Your task to perform on an android device: open sync settings in chrome Image 0: 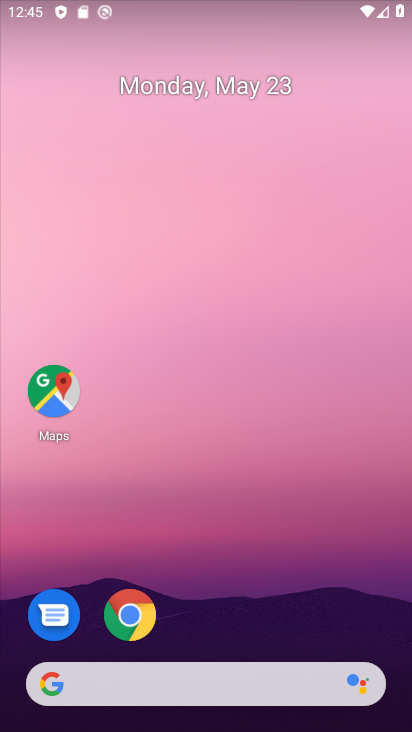
Step 0: click (134, 614)
Your task to perform on an android device: open sync settings in chrome Image 1: 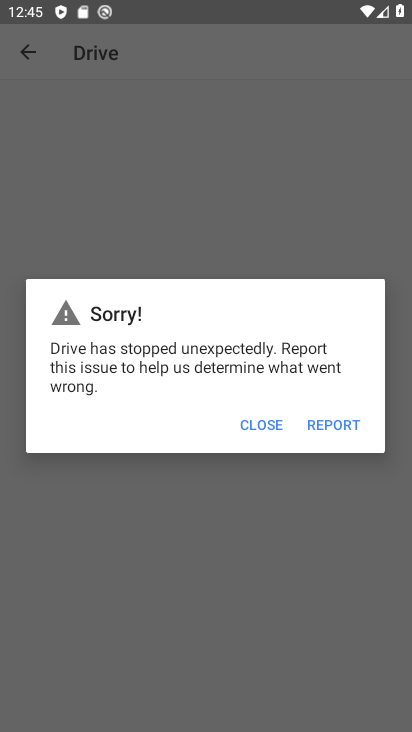
Step 1: click (261, 418)
Your task to perform on an android device: open sync settings in chrome Image 2: 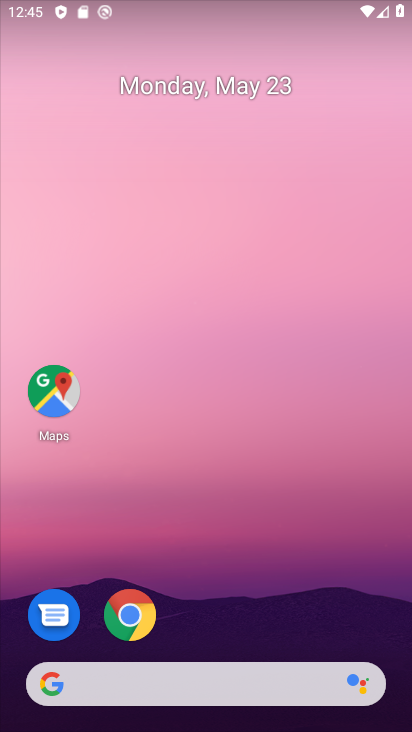
Step 2: click (129, 616)
Your task to perform on an android device: open sync settings in chrome Image 3: 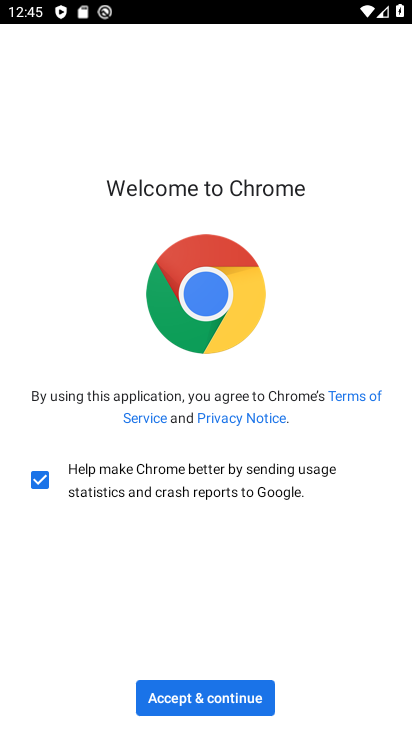
Step 3: click (175, 695)
Your task to perform on an android device: open sync settings in chrome Image 4: 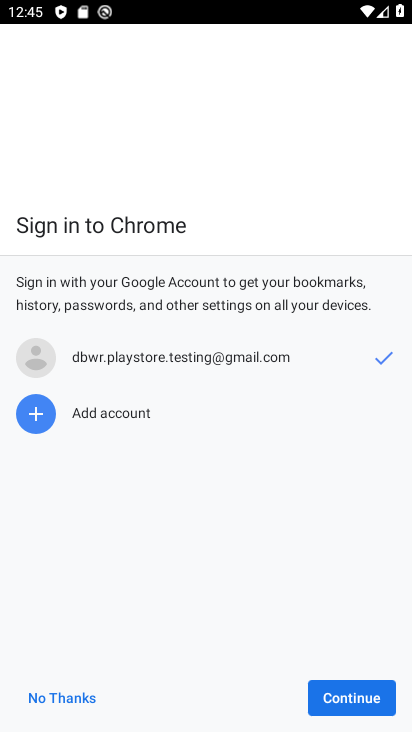
Step 4: click (344, 692)
Your task to perform on an android device: open sync settings in chrome Image 5: 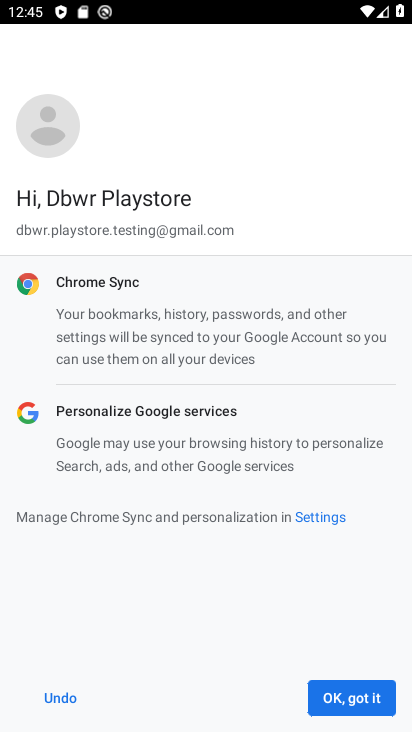
Step 5: click (344, 692)
Your task to perform on an android device: open sync settings in chrome Image 6: 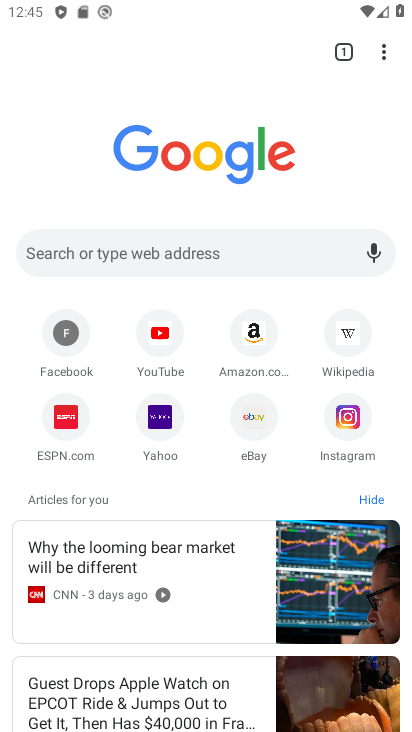
Step 6: click (386, 59)
Your task to perform on an android device: open sync settings in chrome Image 7: 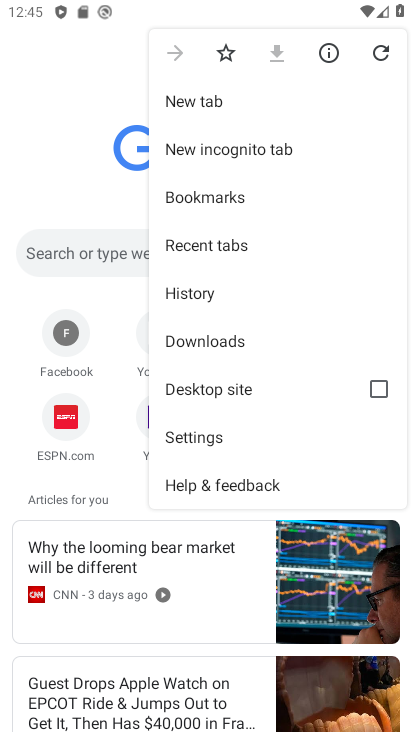
Step 7: click (194, 436)
Your task to perform on an android device: open sync settings in chrome Image 8: 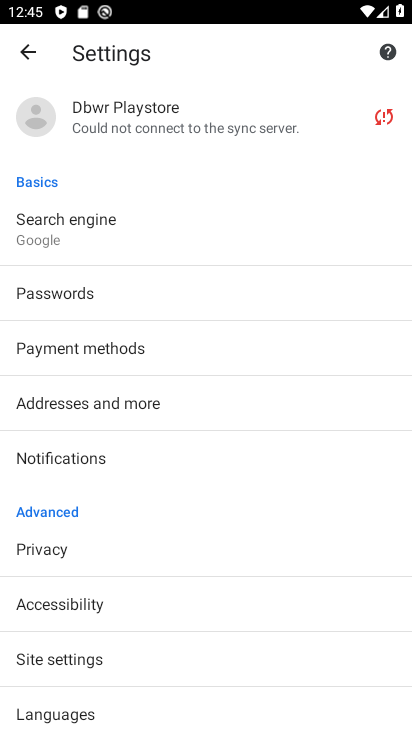
Step 8: click (41, 659)
Your task to perform on an android device: open sync settings in chrome Image 9: 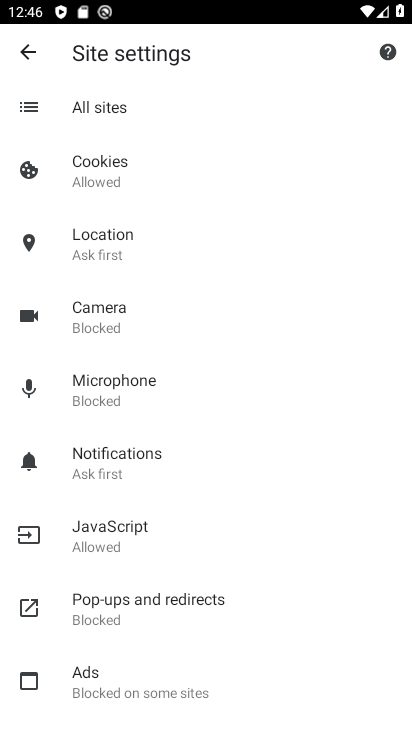
Step 9: drag from (125, 655) to (127, 278)
Your task to perform on an android device: open sync settings in chrome Image 10: 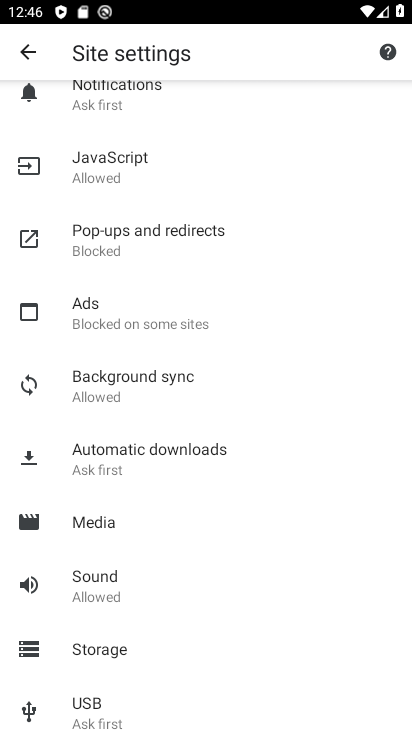
Step 10: drag from (132, 713) to (137, 370)
Your task to perform on an android device: open sync settings in chrome Image 11: 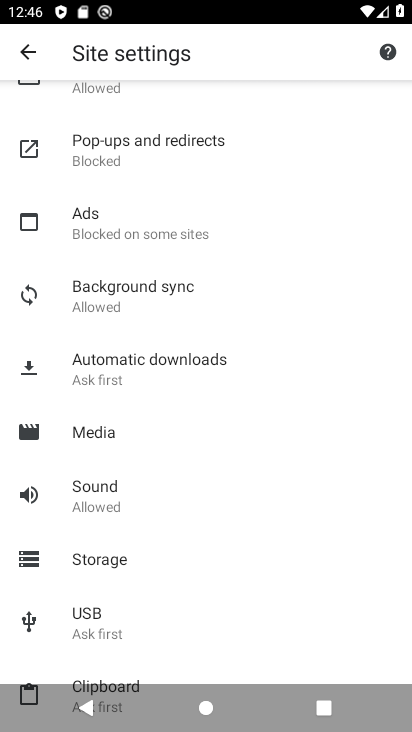
Step 11: click (122, 285)
Your task to perform on an android device: open sync settings in chrome Image 12: 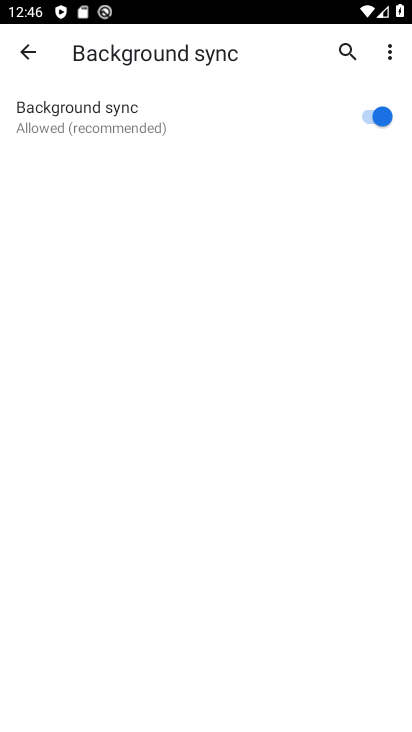
Step 12: task complete